Your task to perform on an android device: change alarm snooze length Image 0: 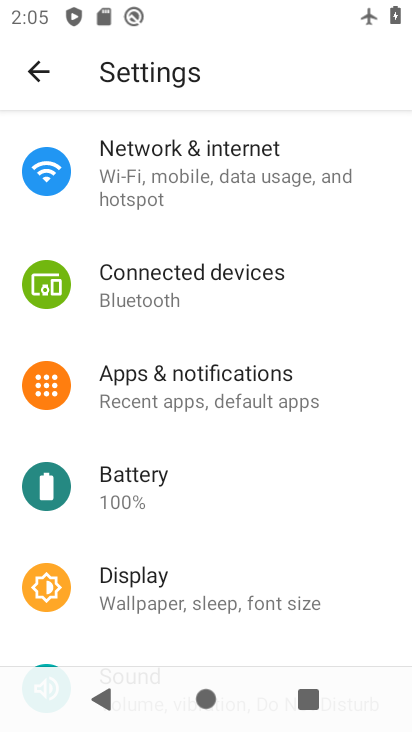
Step 0: press home button
Your task to perform on an android device: change alarm snooze length Image 1: 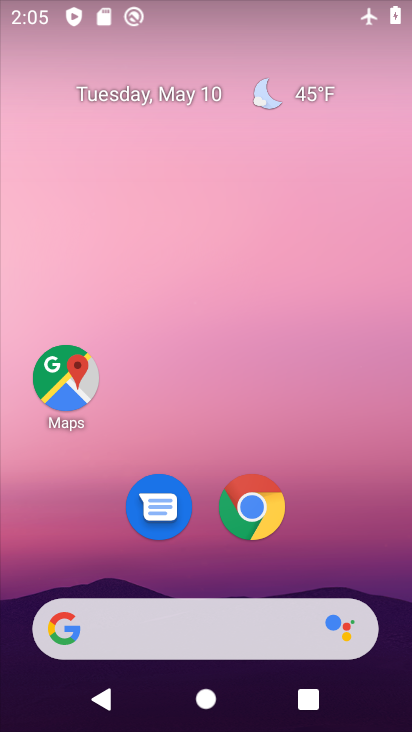
Step 1: drag from (323, 561) to (133, 89)
Your task to perform on an android device: change alarm snooze length Image 2: 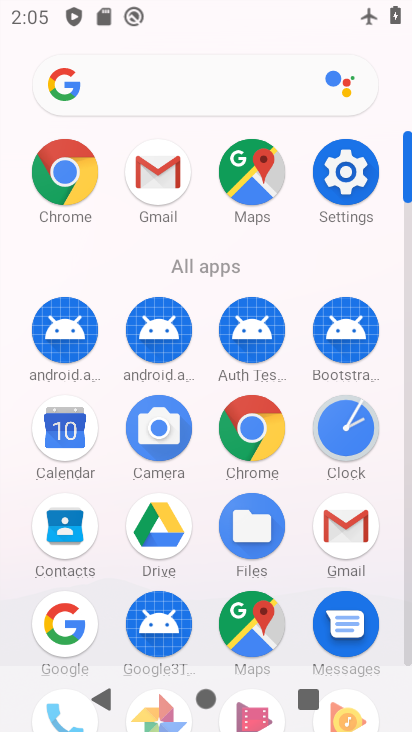
Step 2: click (351, 422)
Your task to perform on an android device: change alarm snooze length Image 3: 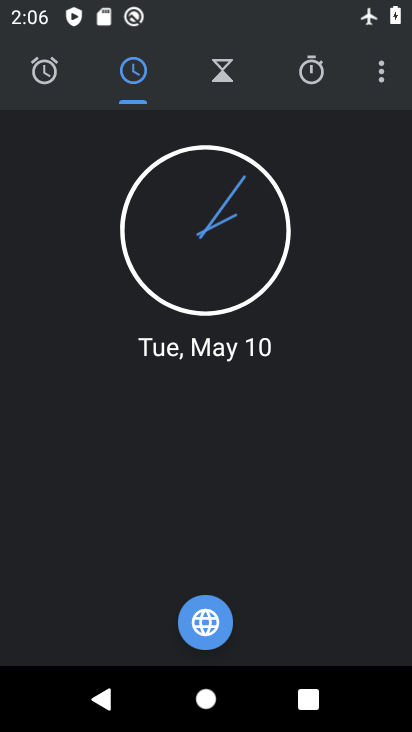
Step 3: click (380, 66)
Your task to perform on an android device: change alarm snooze length Image 4: 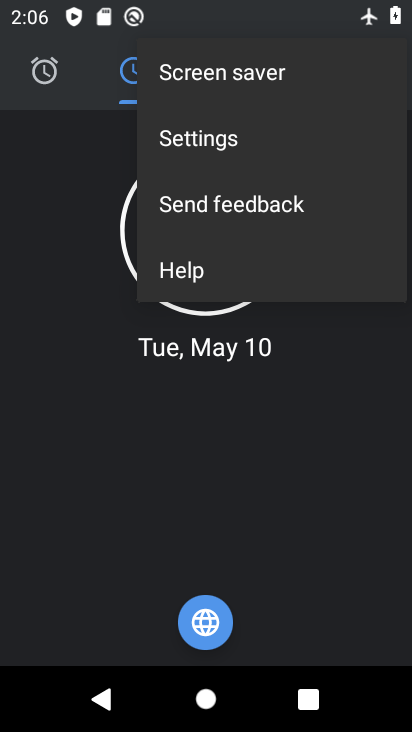
Step 4: click (210, 139)
Your task to perform on an android device: change alarm snooze length Image 5: 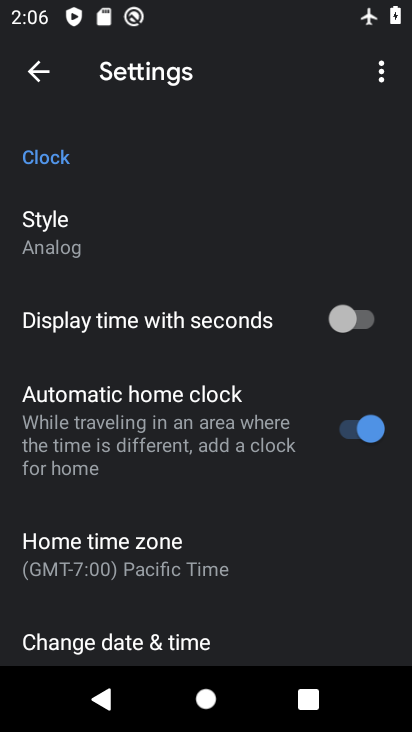
Step 5: drag from (177, 600) to (146, 179)
Your task to perform on an android device: change alarm snooze length Image 6: 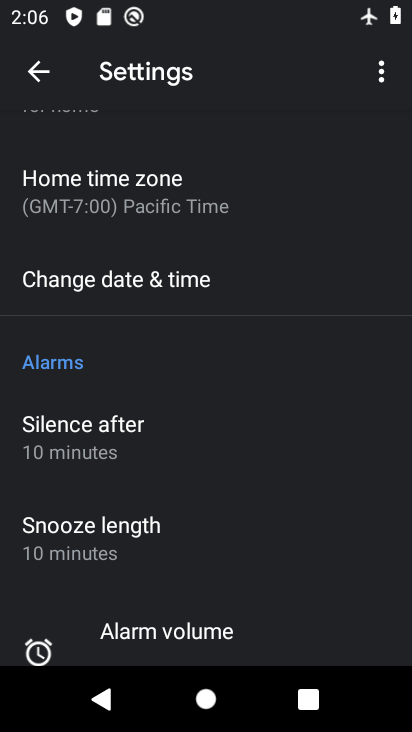
Step 6: click (93, 546)
Your task to perform on an android device: change alarm snooze length Image 7: 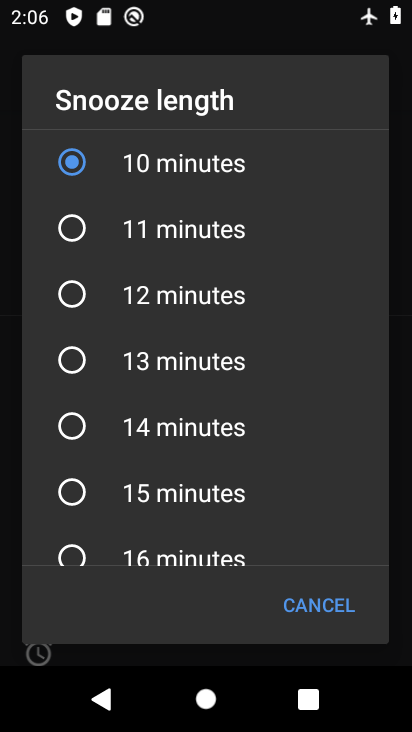
Step 7: click (66, 492)
Your task to perform on an android device: change alarm snooze length Image 8: 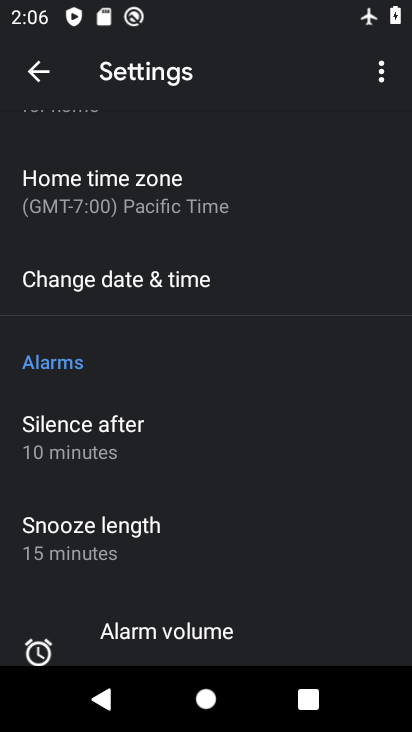
Step 8: task complete